Your task to perform on an android device: manage bookmarks in the chrome app Image 0: 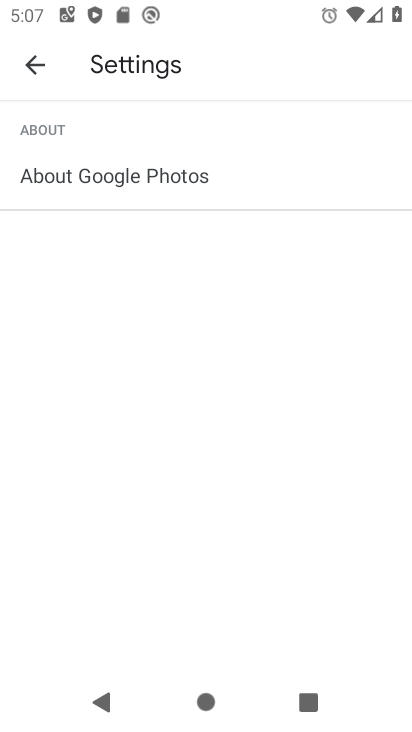
Step 0: press home button
Your task to perform on an android device: manage bookmarks in the chrome app Image 1: 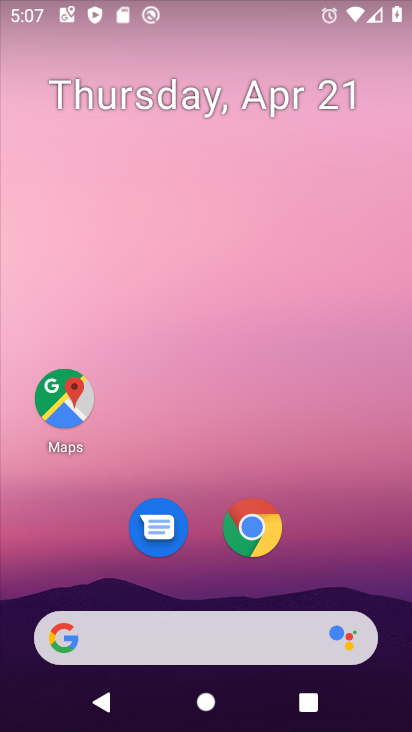
Step 1: click (333, 122)
Your task to perform on an android device: manage bookmarks in the chrome app Image 2: 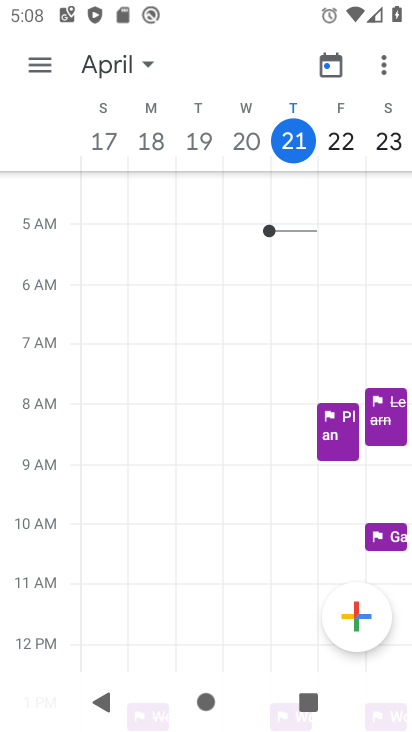
Step 2: press home button
Your task to perform on an android device: manage bookmarks in the chrome app Image 3: 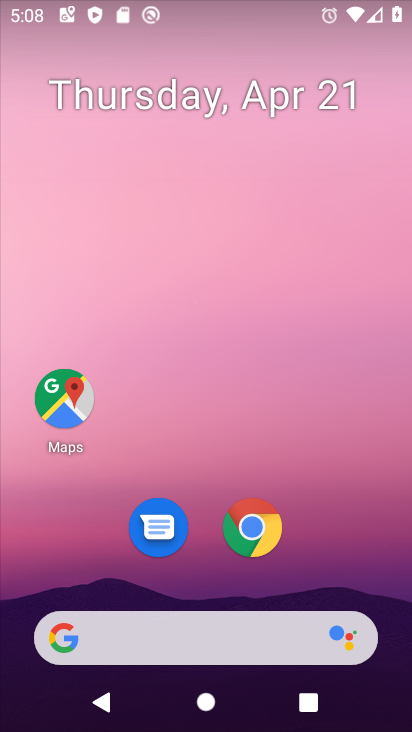
Step 3: click (261, 517)
Your task to perform on an android device: manage bookmarks in the chrome app Image 4: 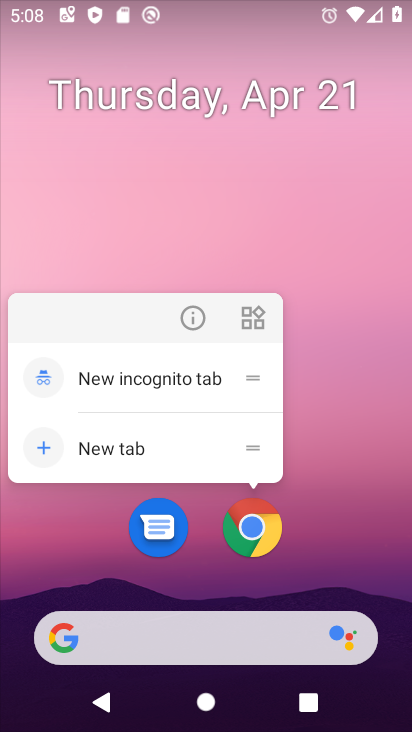
Step 4: click (244, 522)
Your task to perform on an android device: manage bookmarks in the chrome app Image 5: 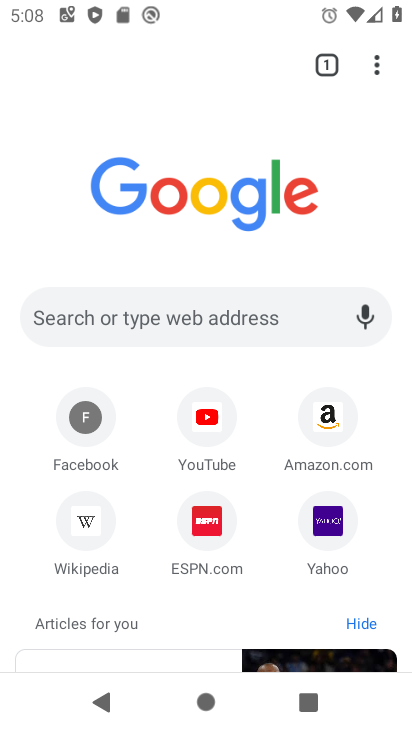
Step 5: click (372, 61)
Your task to perform on an android device: manage bookmarks in the chrome app Image 6: 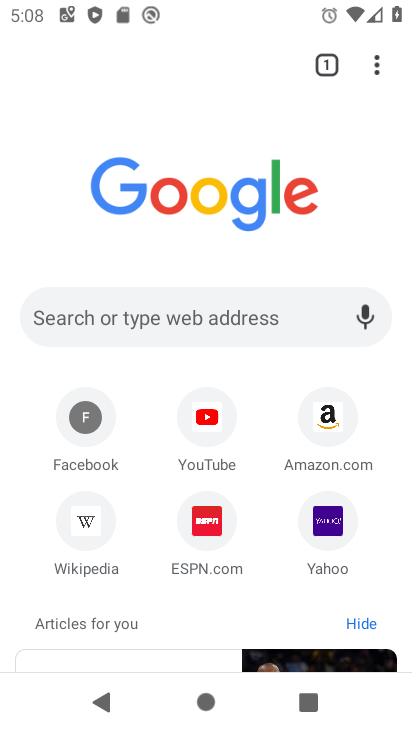
Step 6: click (375, 63)
Your task to perform on an android device: manage bookmarks in the chrome app Image 7: 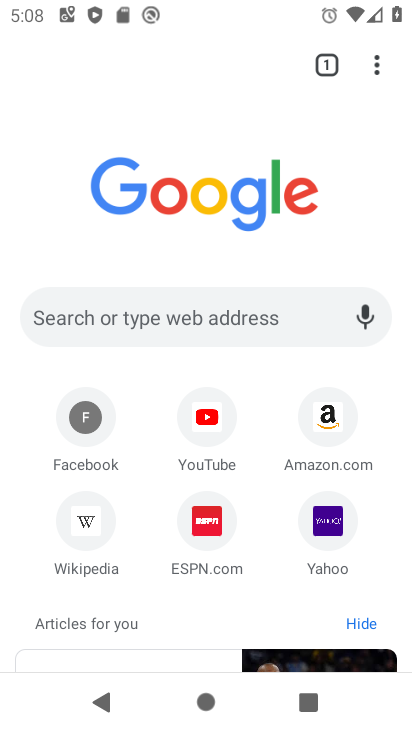
Step 7: click (375, 63)
Your task to perform on an android device: manage bookmarks in the chrome app Image 8: 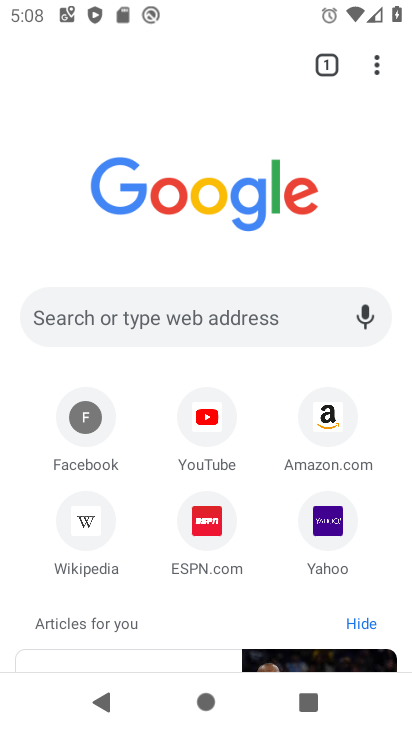
Step 8: click (375, 63)
Your task to perform on an android device: manage bookmarks in the chrome app Image 9: 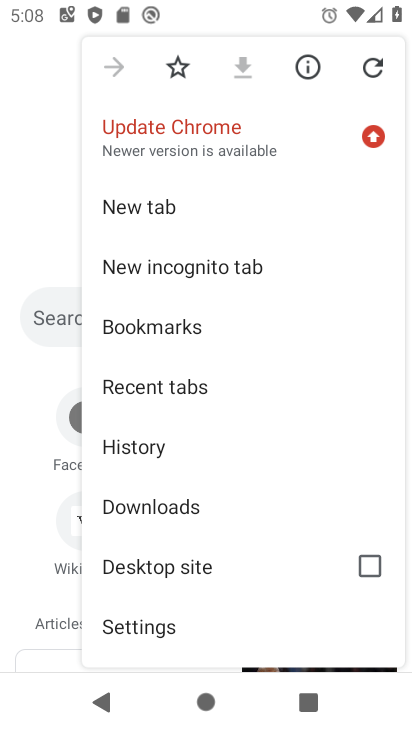
Step 9: drag from (294, 599) to (282, 250)
Your task to perform on an android device: manage bookmarks in the chrome app Image 10: 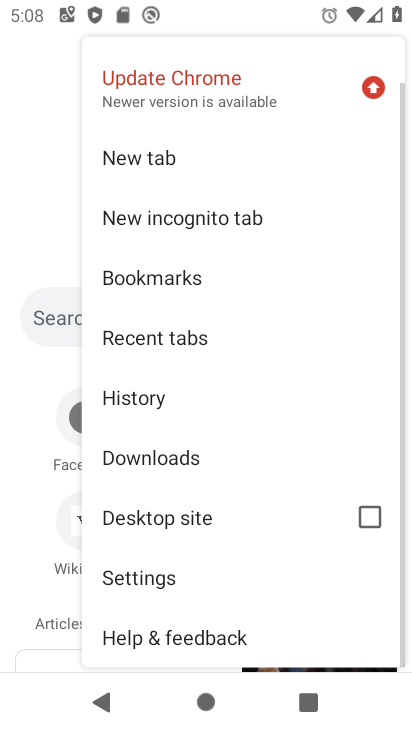
Step 10: drag from (255, 464) to (239, 211)
Your task to perform on an android device: manage bookmarks in the chrome app Image 11: 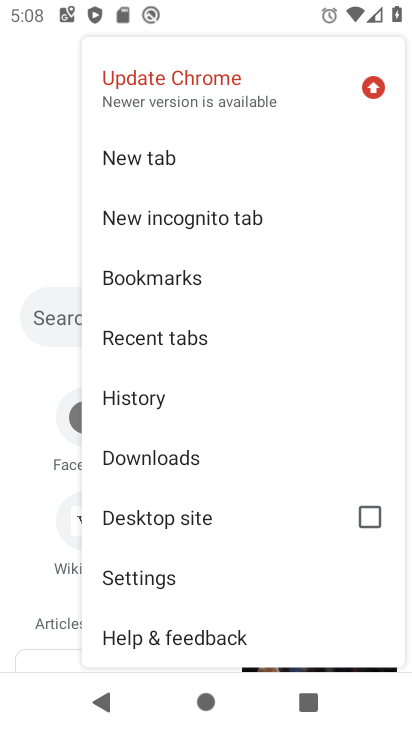
Step 11: click (134, 280)
Your task to perform on an android device: manage bookmarks in the chrome app Image 12: 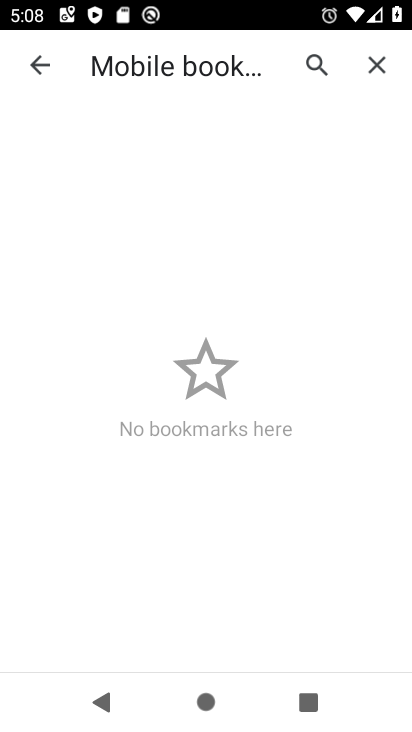
Step 12: click (32, 66)
Your task to perform on an android device: manage bookmarks in the chrome app Image 13: 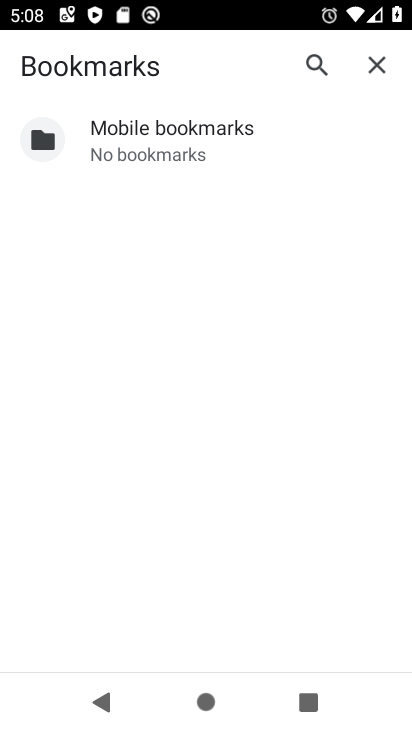
Step 13: click (115, 141)
Your task to perform on an android device: manage bookmarks in the chrome app Image 14: 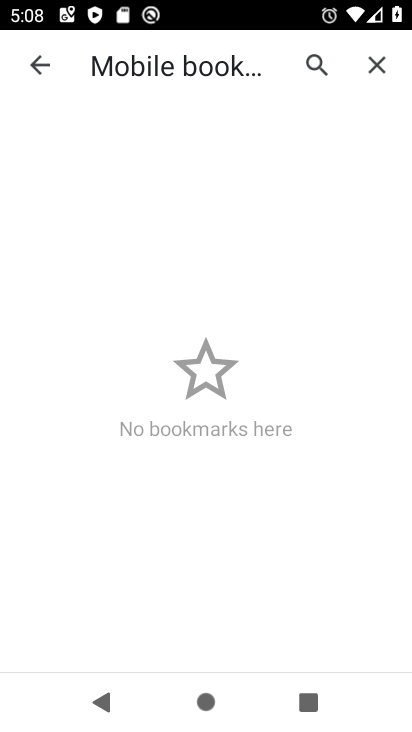
Step 14: task complete